Your task to perform on an android device: Open display settings Image 0: 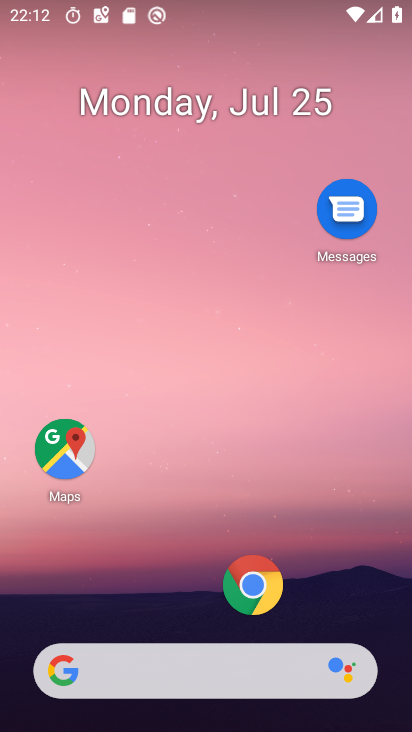
Step 0: press home button
Your task to perform on an android device: Open display settings Image 1: 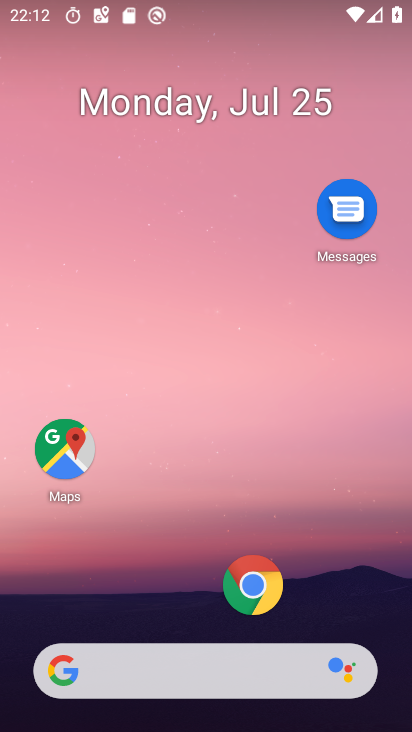
Step 1: drag from (185, 678) to (248, 73)
Your task to perform on an android device: Open display settings Image 2: 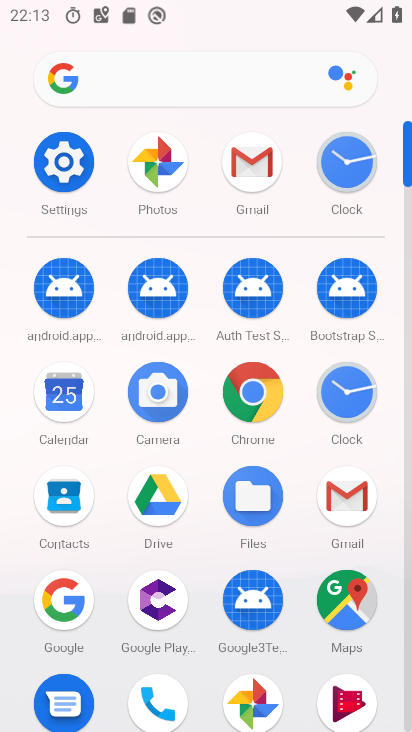
Step 2: click (71, 152)
Your task to perform on an android device: Open display settings Image 3: 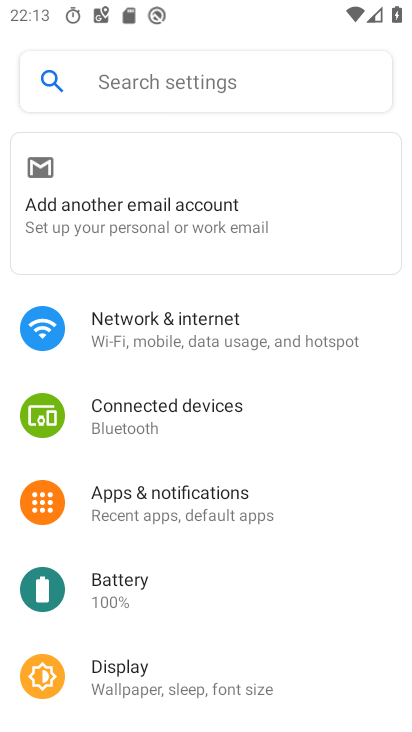
Step 3: drag from (246, 503) to (321, 163)
Your task to perform on an android device: Open display settings Image 4: 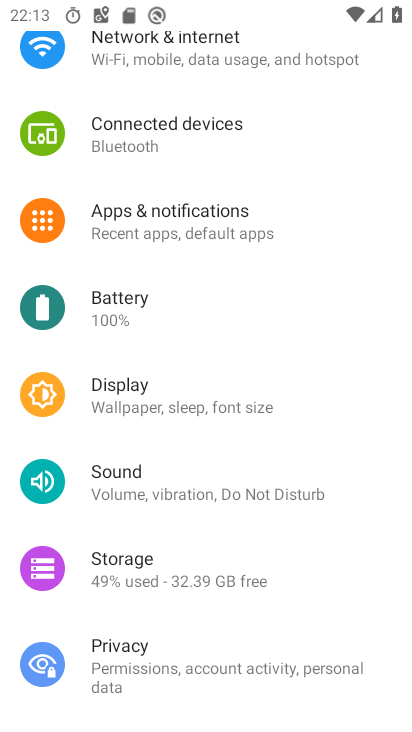
Step 4: click (131, 393)
Your task to perform on an android device: Open display settings Image 5: 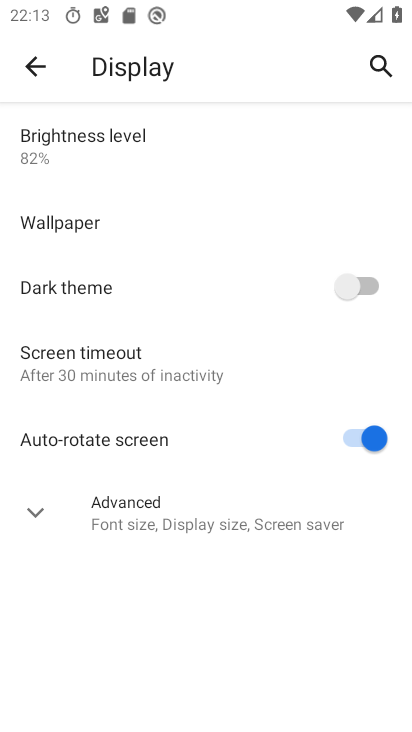
Step 5: task complete